Your task to perform on an android device: open app "Expedia: Hotels, Flights & Car" (install if not already installed) and enter user name: "crusader@outlook.com" and password: "Toryize" Image 0: 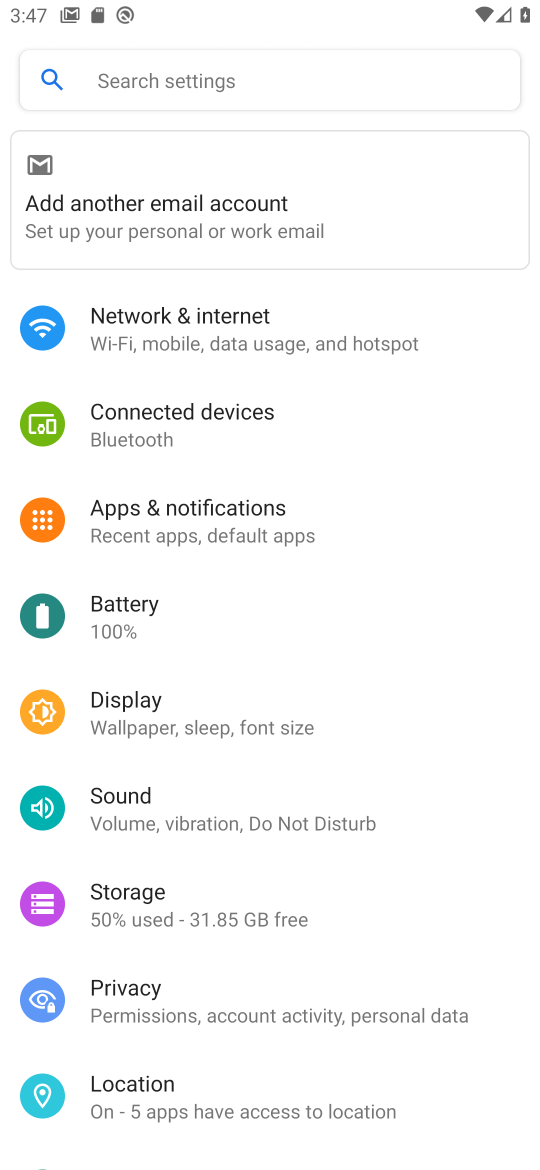
Step 0: press home button
Your task to perform on an android device: open app "Expedia: Hotels, Flights & Car" (install if not already installed) and enter user name: "crusader@outlook.com" and password: "Toryize" Image 1: 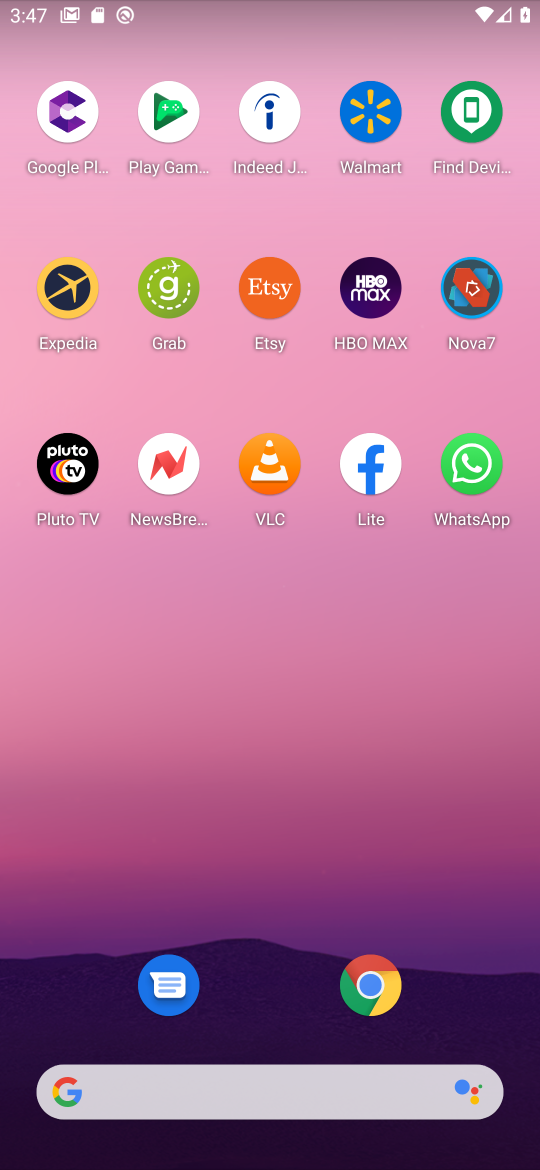
Step 1: drag from (243, 779) to (284, 157)
Your task to perform on an android device: open app "Expedia: Hotels, Flights & Car" (install if not already installed) and enter user name: "crusader@outlook.com" and password: "Toryize" Image 2: 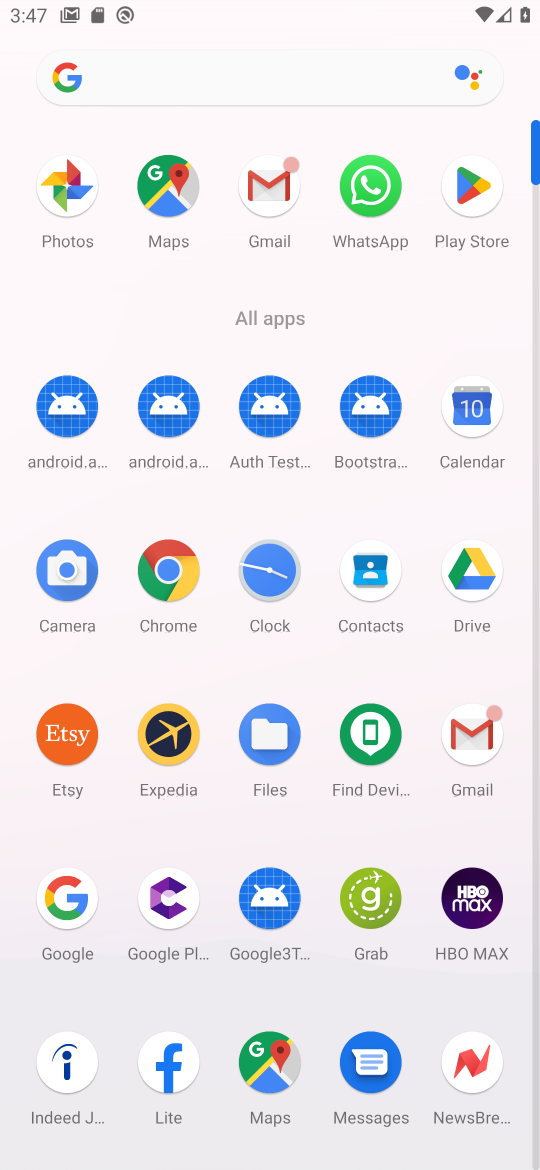
Step 2: click (463, 203)
Your task to perform on an android device: open app "Expedia: Hotels, Flights & Car" (install if not already installed) and enter user name: "crusader@outlook.com" and password: "Toryize" Image 3: 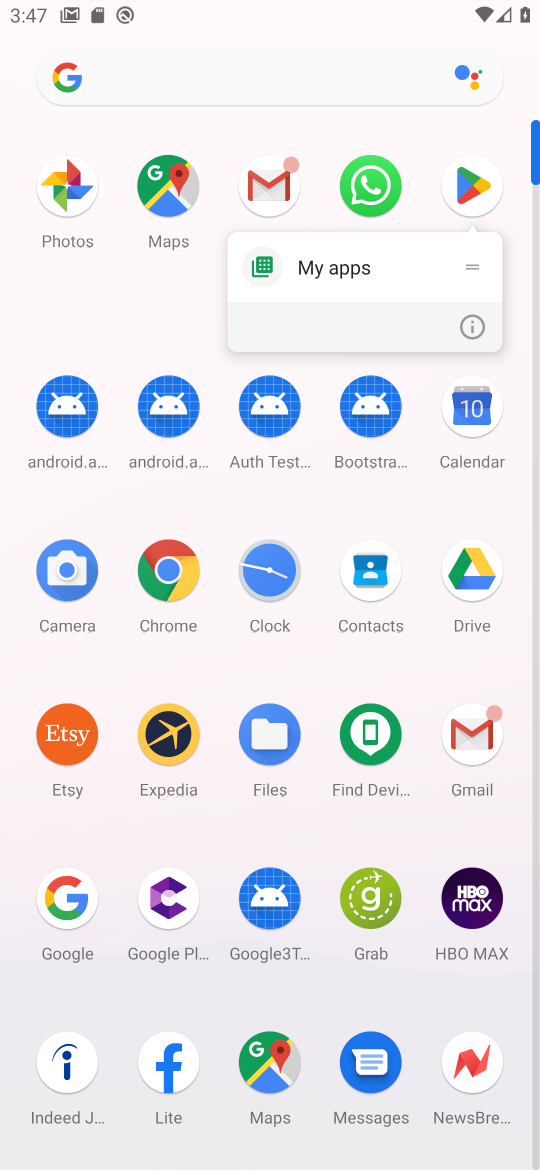
Step 3: click (465, 191)
Your task to perform on an android device: open app "Expedia: Hotels, Flights & Car" (install if not already installed) and enter user name: "crusader@outlook.com" and password: "Toryize" Image 4: 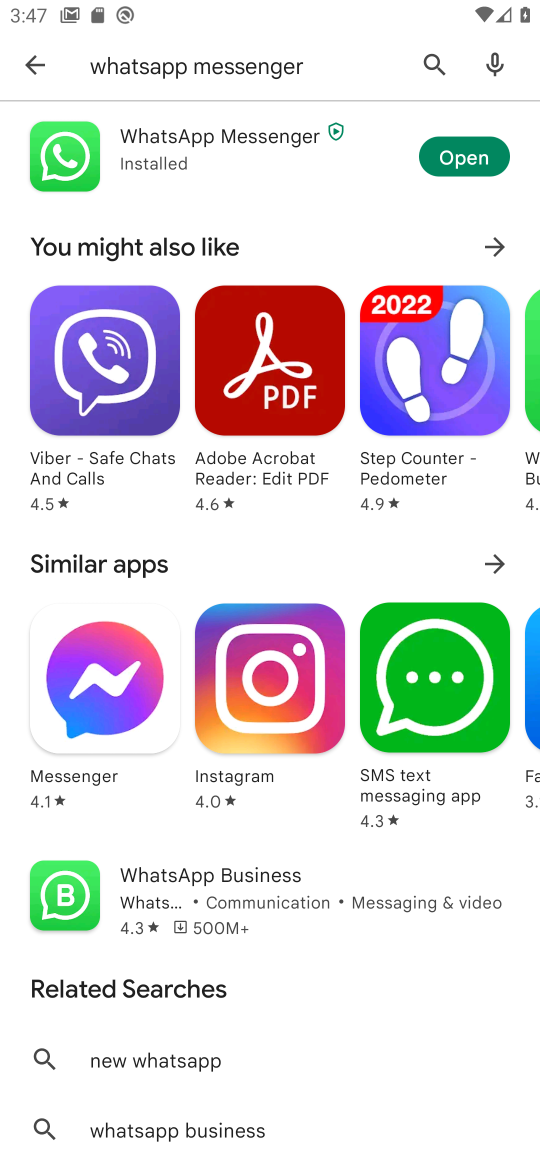
Step 4: click (33, 67)
Your task to perform on an android device: open app "Expedia: Hotels, Flights & Car" (install if not already installed) and enter user name: "crusader@outlook.com" and password: "Toryize" Image 5: 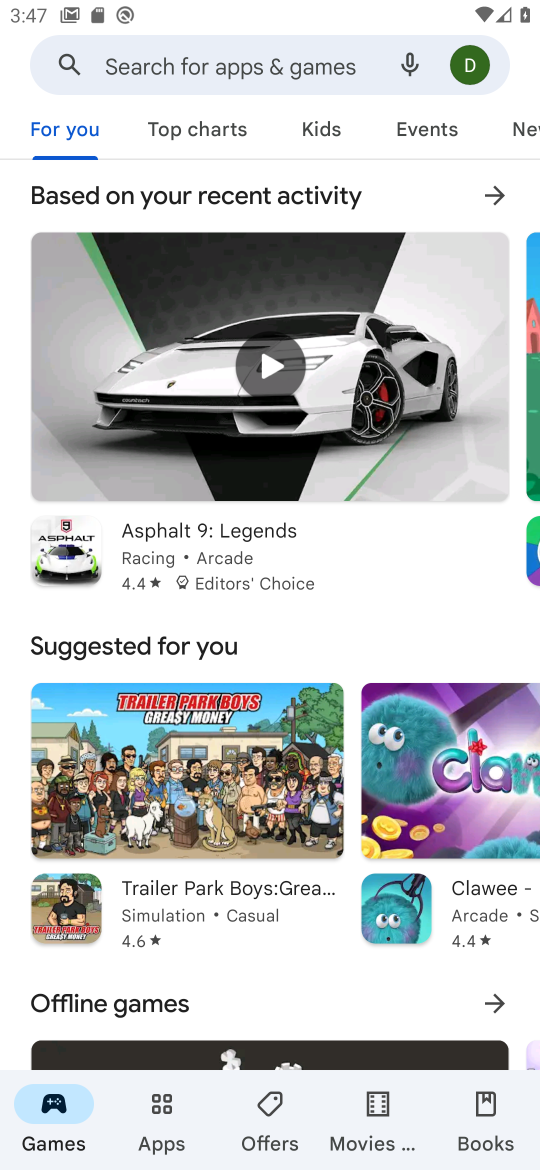
Step 5: click (232, 66)
Your task to perform on an android device: open app "Expedia: Hotels, Flights & Car" (install if not already installed) and enter user name: "crusader@outlook.com" and password: "Toryize" Image 6: 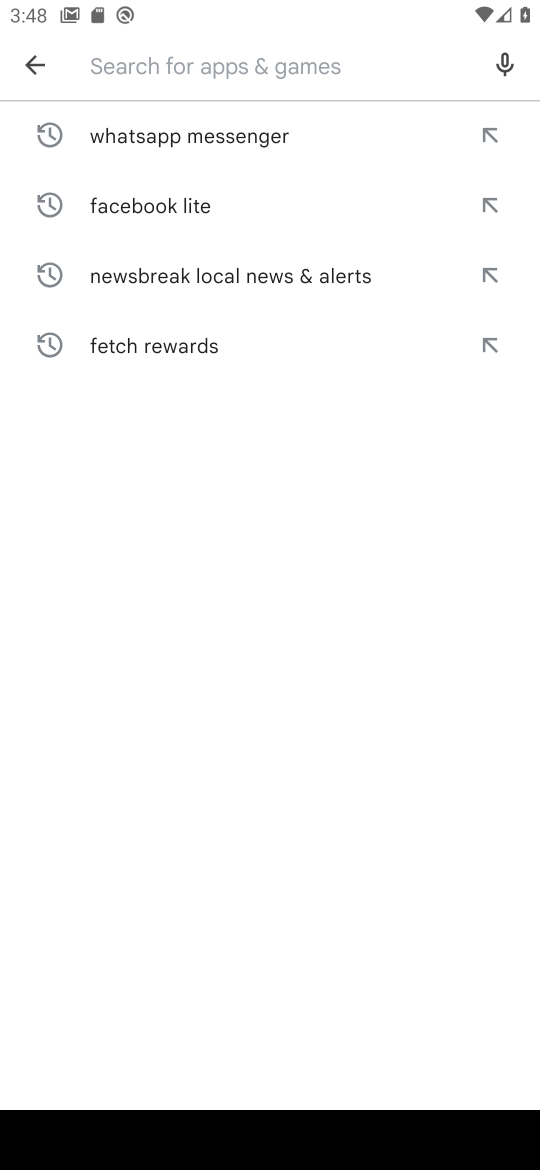
Step 6: type "Expedia: Hotels, Flights & Car"
Your task to perform on an android device: open app "Expedia: Hotels, Flights & Car" (install if not already installed) and enter user name: "crusader@outlook.com" and password: "Toryize" Image 7: 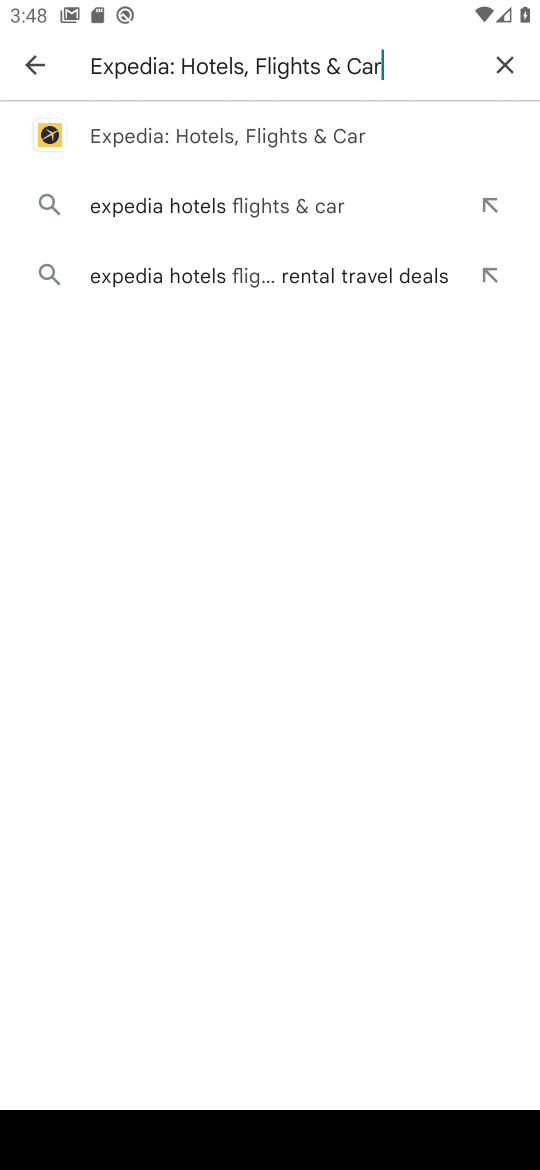
Step 7: click (276, 137)
Your task to perform on an android device: open app "Expedia: Hotels, Flights & Car" (install if not already installed) and enter user name: "crusader@outlook.com" and password: "Toryize" Image 8: 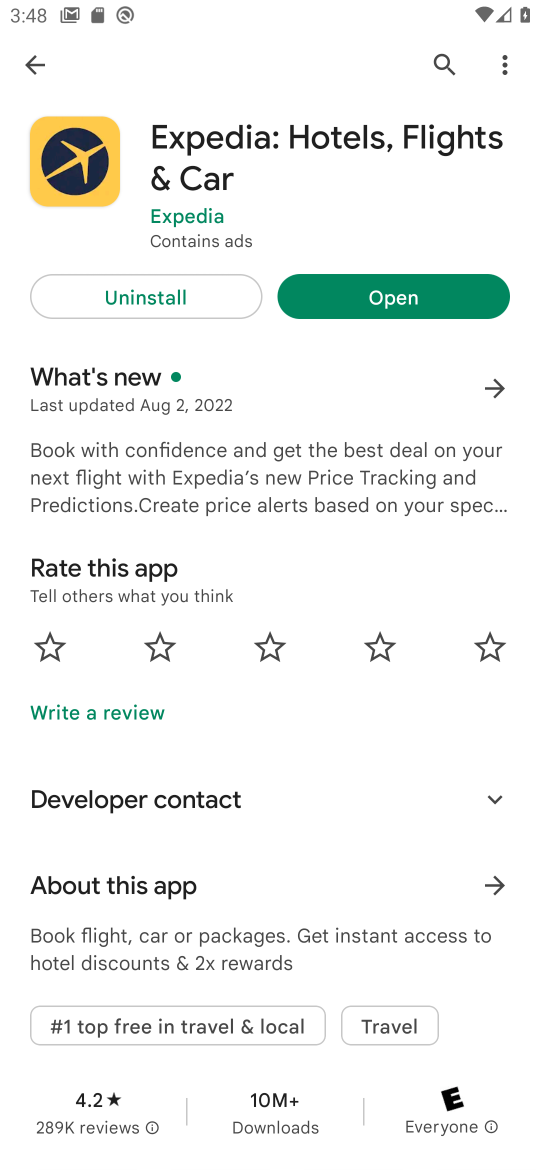
Step 8: click (382, 316)
Your task to perform on an android device: open app "Expedia: Hotels, Flights & Car" (install if not already installed) and enter user name: "crusader@outlook.com" and password: "Toryize" Image 9: 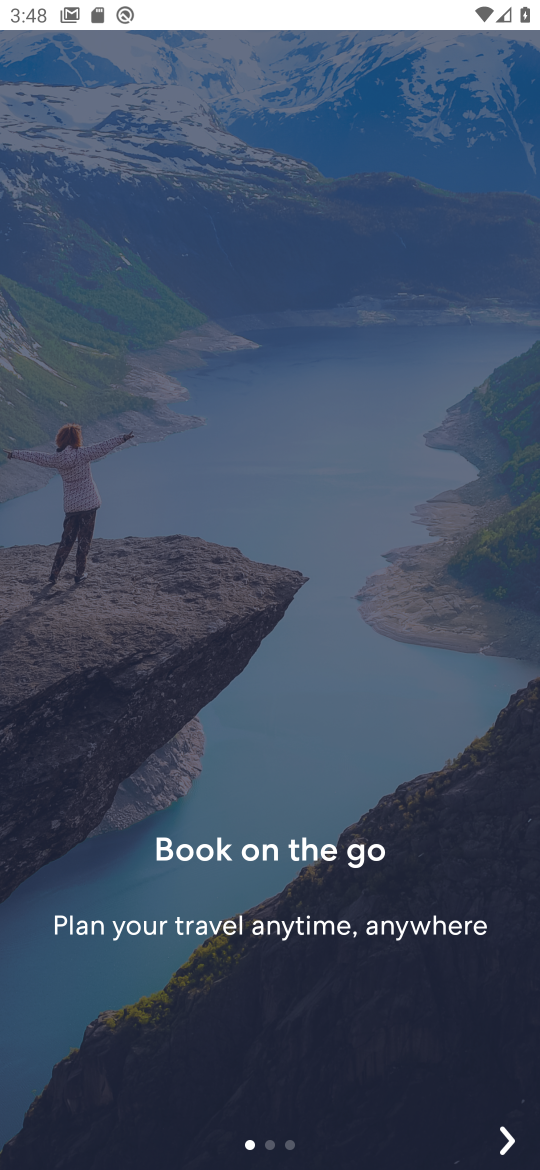
Step 9: click (506, 1162)
Your task to perform on an android device: open app "Expedia: Hotels, Flights & Car" (install if not already installed) and enter user name: "crusader@outlook.com" and password: "Toryize" Image 10: 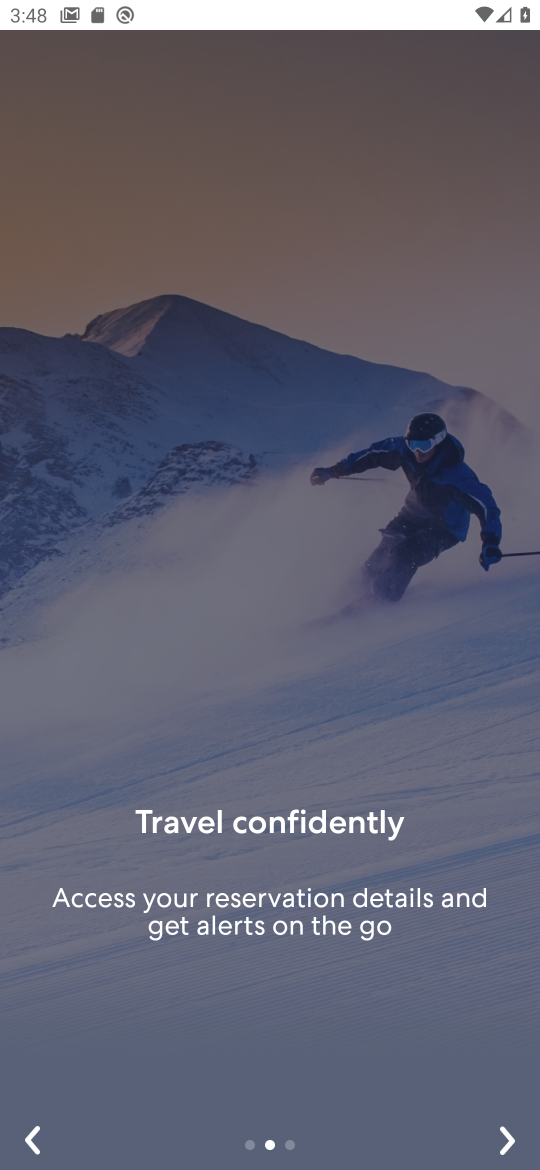
Step 10: click (506, 1138)
Your task to perform on an android device: open app "Expedia: Hotels, Flights & Car" (install if not already installed) and enter user name: "crusader@outlook.com" and password: "Toryize" Image 11: 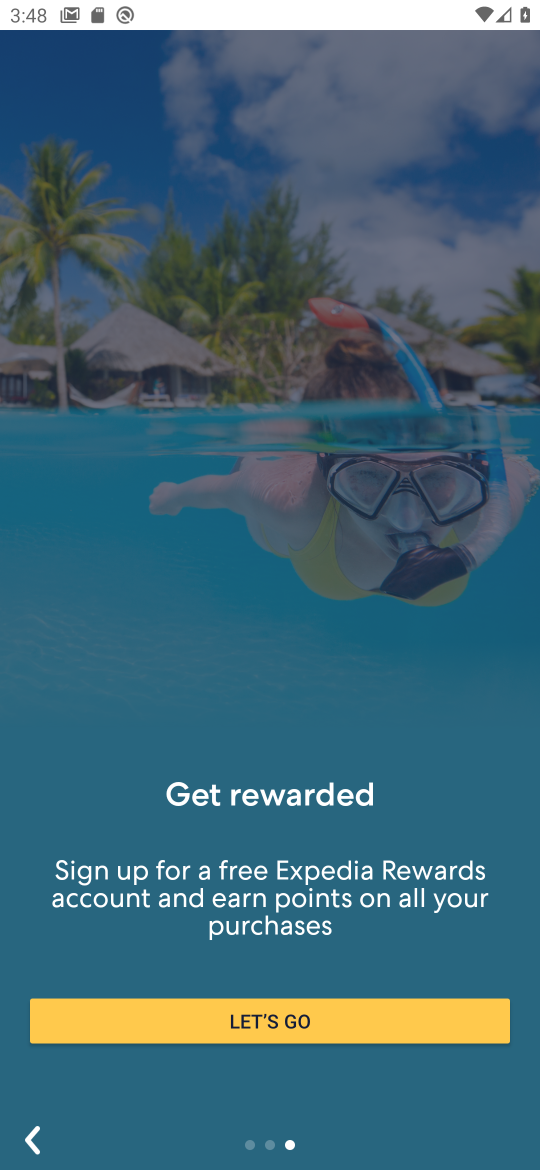
Step 11: click (269, 1014)
Your task to perform on an android device: open app "Expedia: Hotels, Flights & Car" (install if not already installed) and enter user name: "crusader@outlook.com" and password: "Toryize" Image 12: 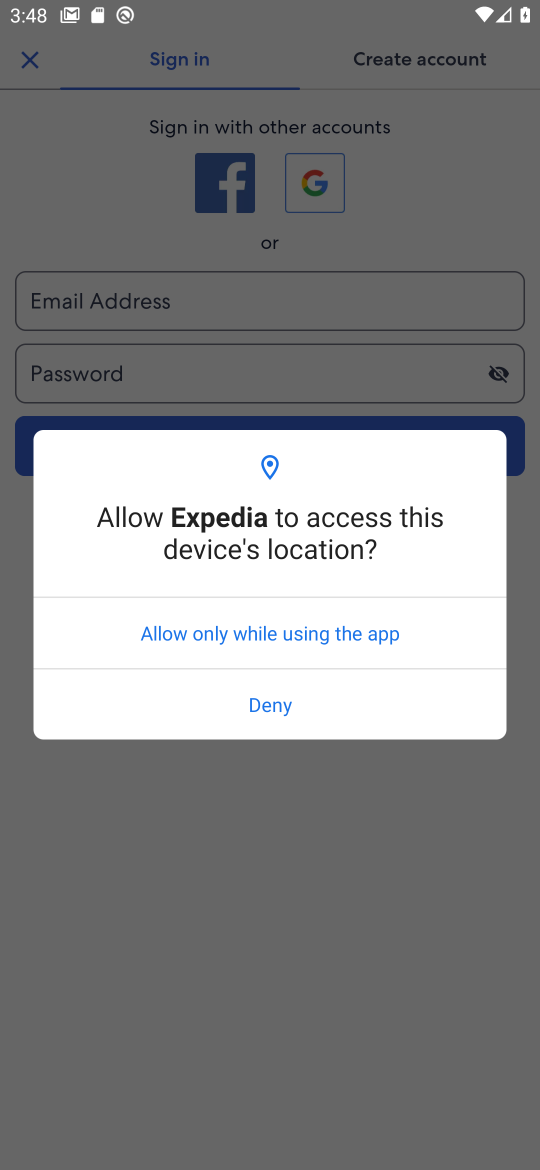
Step 12: click (240, 638)
Your task to perform on an android device: open app "Expedia: Hotels, Flights & Car" (install if not already installed) and enter user name: "crusader@outlook.com" and password: "Toryize" Image 13: 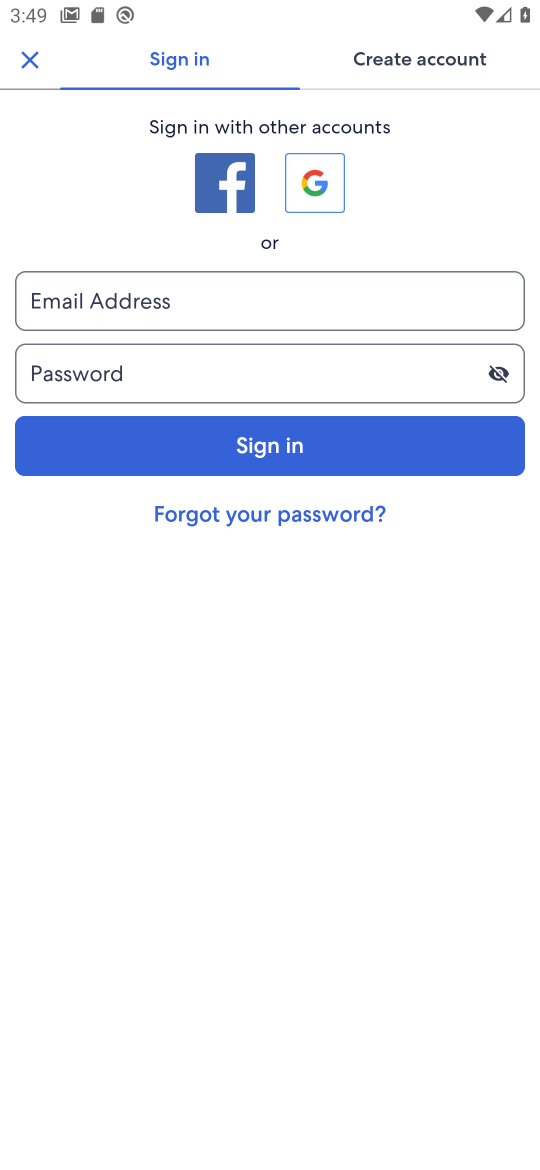
Step 13: click (257, 296)
Your task to perform on an android device: open app "Expedia: Hotels, Flights & Car" (install if not already installed) and enter user name: "crusader@outlook.com" and password: "Toryize" Image 14: 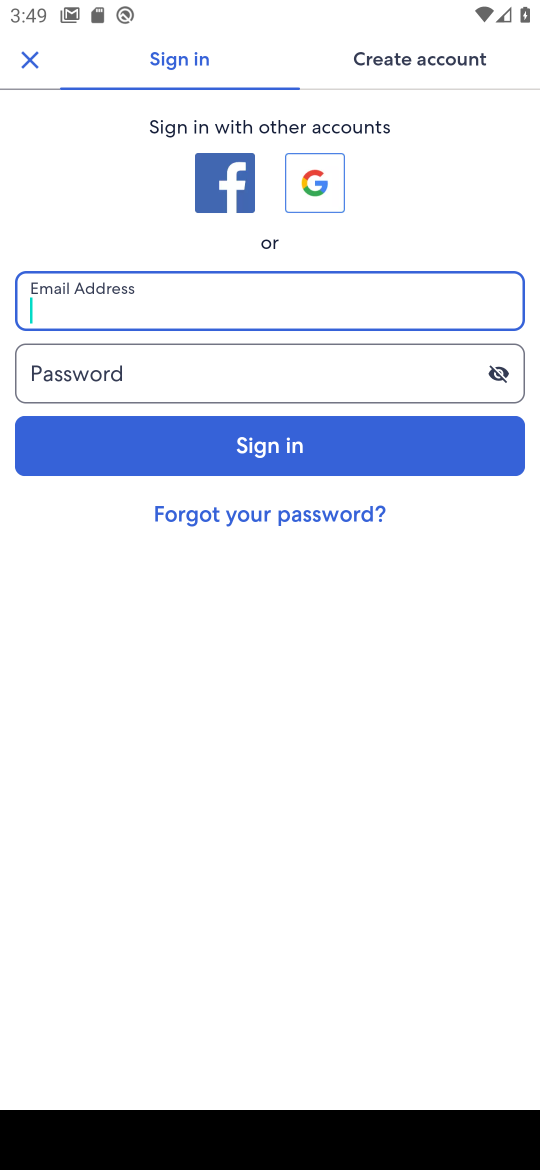
Step 14: type "crusader@outlook.com"
Your task to perform on an android device: open app "Expedia: Hotels, Flights & Car" (install if not already installed) and enter user name: "crusader@outlook.com" and password: "Toryize" Image 15: 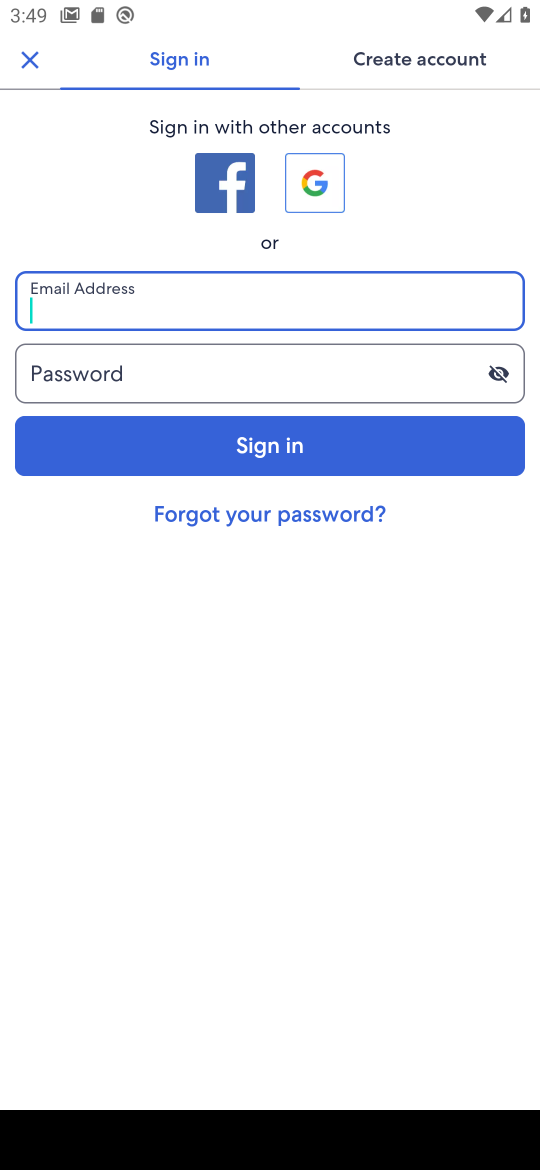
Step 15: click (303, 378)
Your task to perform on an android device: open app "Expedia: Hotels, Flights & Car" (install if not already installed) and enter user name: "crusader@outlook.com" and password: "Toryize" Image 16: 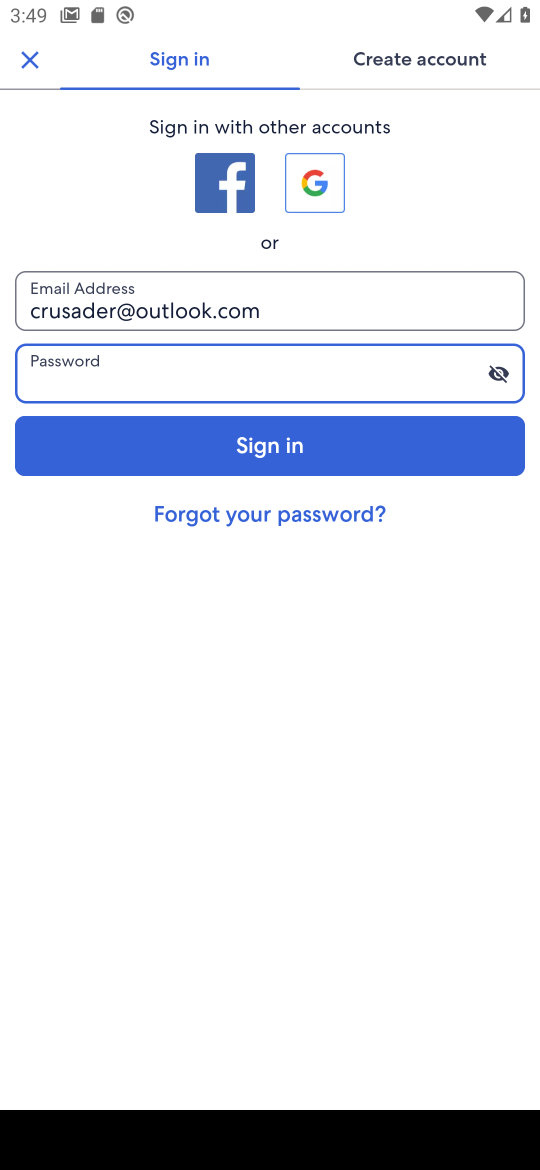
Step 16: type "Toryize"
Your task to perform on an android device: open app "Expedia: Hotels, Flights & Car" (install if not already installed) and enter user name: "crusader@outlook.com" and password: "Toryize" Image 17: 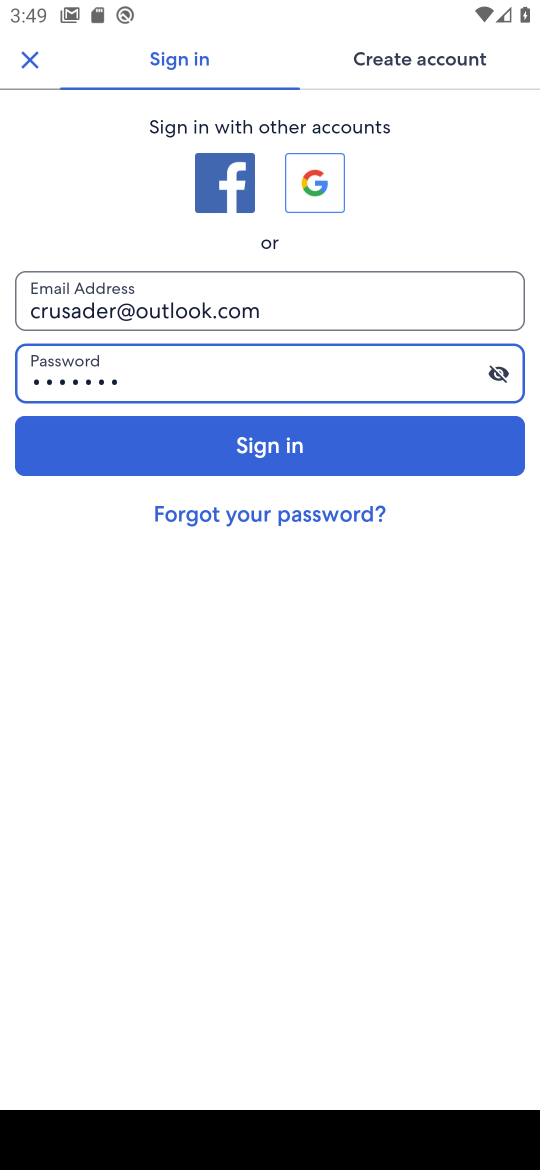
Step 17: task complete